Your task to perform on an android device: Open internet settings Image 0: 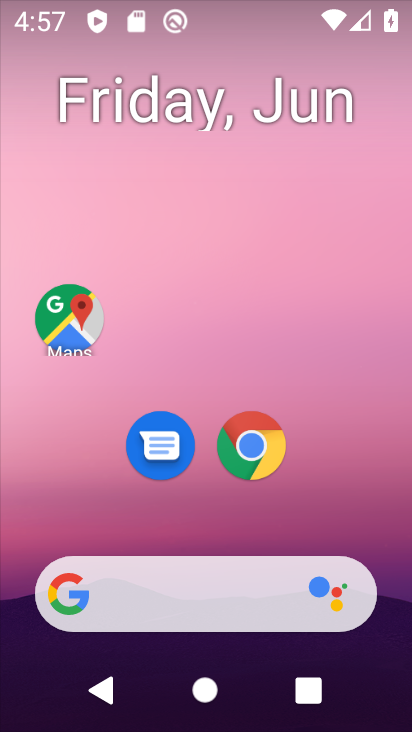
Step 0: drag from (381, 669) to (330, 82)
Your task to perform on an android device: Open internet settings Image 1: 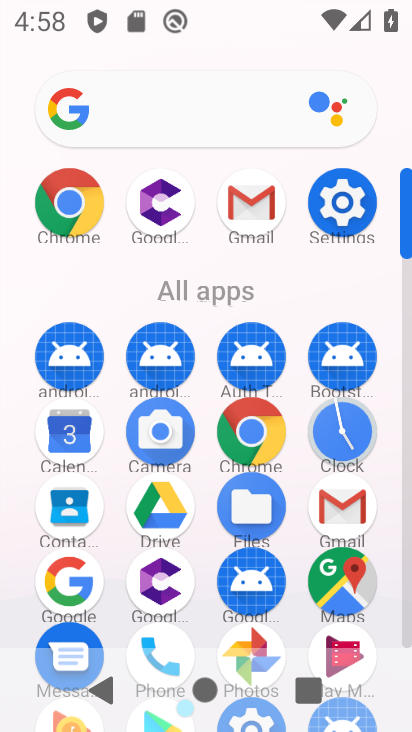
Step 1: click (341, 203)
Your task to perform on an android device: Open internet settings Image 2: 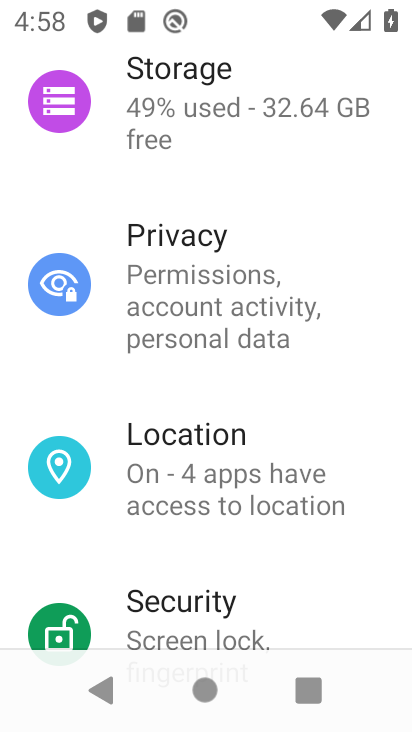
Step 2: drag from (312, 152) to (282, 540)
Your task to perform on an android device: Open internet settings Image 3: 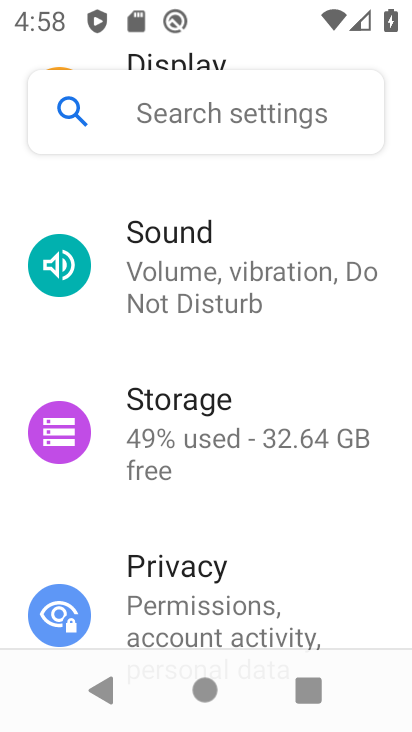
Step 3: drag from (269, 198) to (273, 612)
Your task to perform on an android device: Open internet settings Image 4: 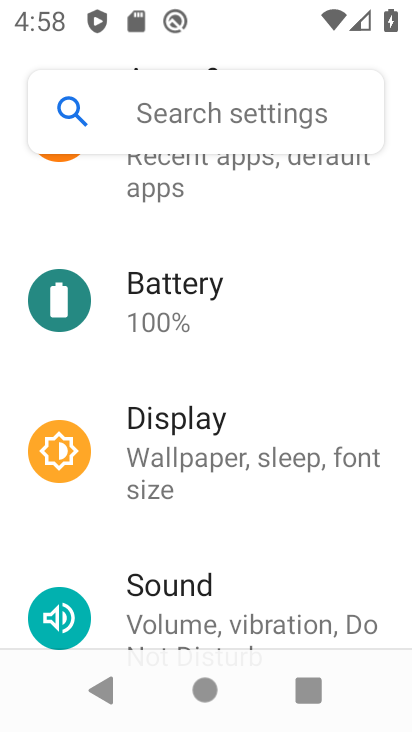
Step 4: drag from (285, 214) to (286, 622)
Your task to perform on an android device: Open internet settings Image 5: 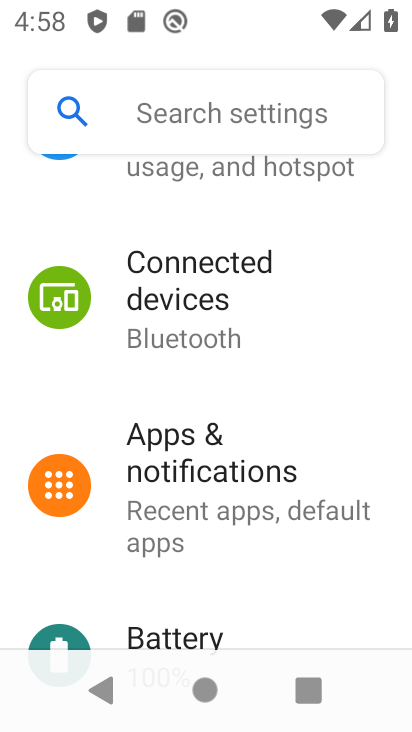
Step 5: drag from (311, 440) to (309, 612)
Your task to perform on an android device: Open internet settings Image 6: 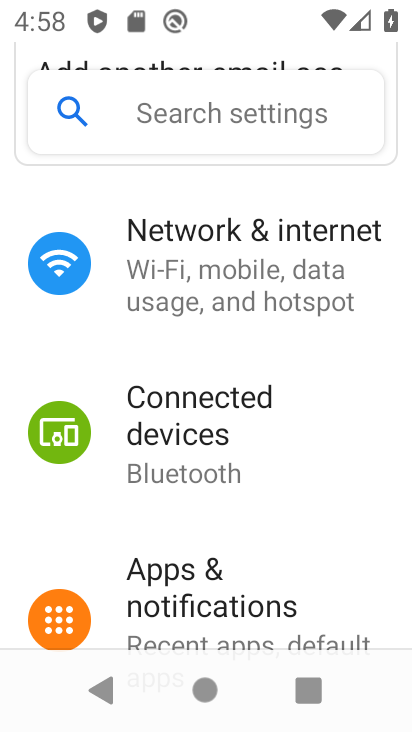
Step 6: drag from (277, 235) to (285, 590)
Your task to perform on an android device: Open internet settings Image 7: 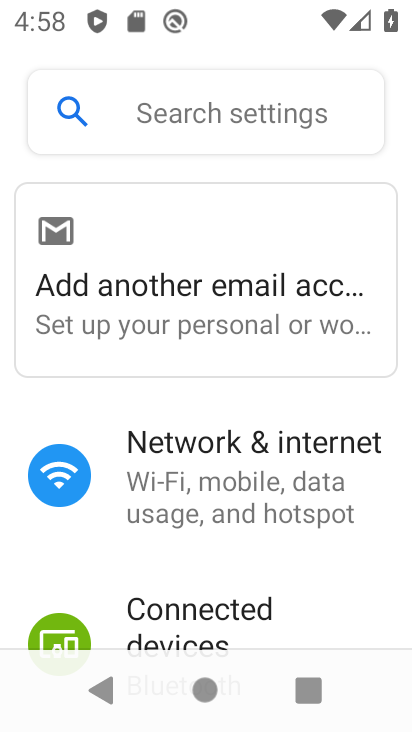
Step 7: click (255, 496)
Your task to perform on an android device: Open internet settings Image 8: 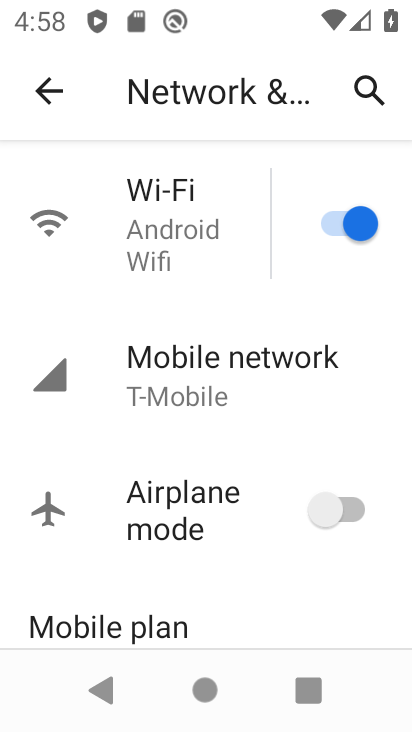
Step 8: drag from (215, 476) to (212, 127)
Your task to perform on an android device: Open internet settings Image 9: 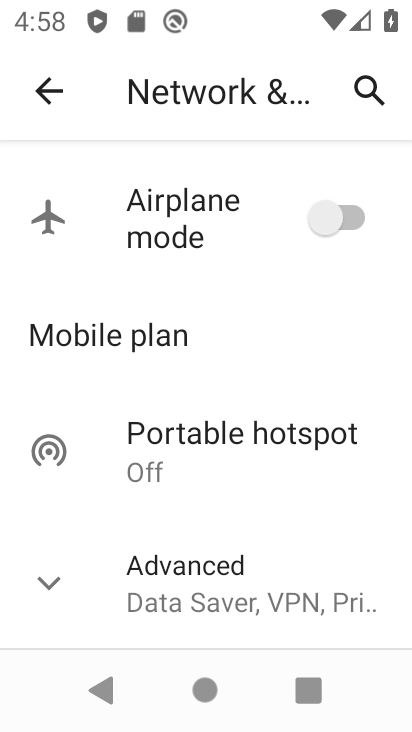
Step 9: click (56, 577)
Your task to perform on an android device: Open internet settings Image 10: 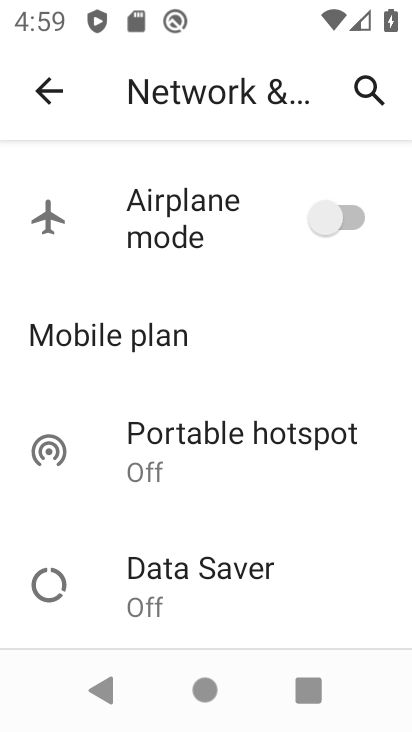
Step 10: task complete